Your task to perform on an android device: change alarm snooze length Image 0: 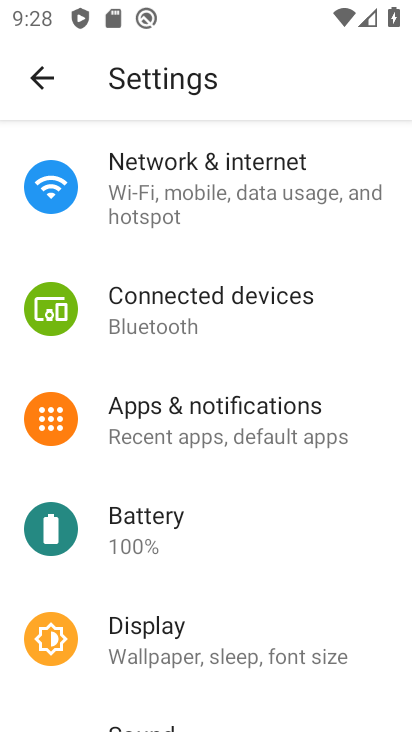
Step 0: press home button
Your task to perform on an android device: change alarm snooze length Image 1: 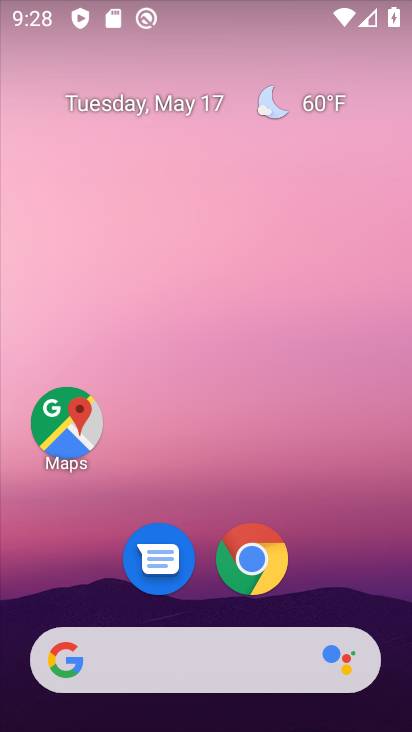
Step 1: drag from (298, 516) to (282, 196)
Your task to perform on an android device: change alarm snooze length Image 2: 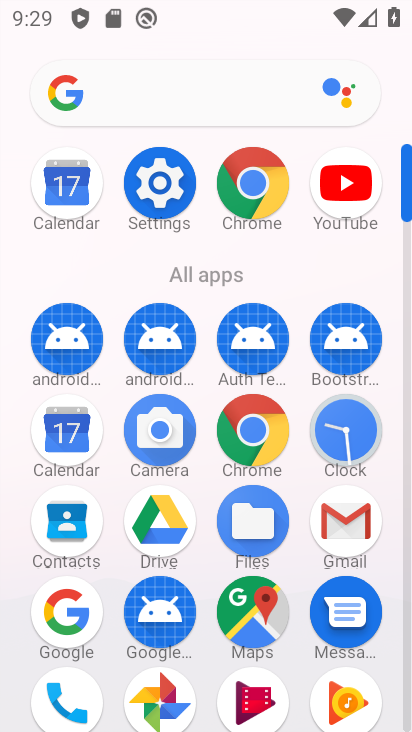
Step 2: click (364, 421)
Your task to perform on an android device: change alarm snooze length Image 3: 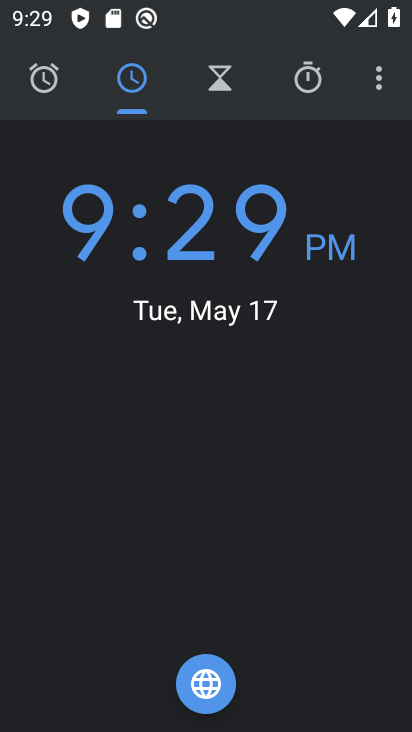
Step 3: drag from (384, 71) to (230, 152)
Your task to perform on an android device: change alarm snooze length Image 4: 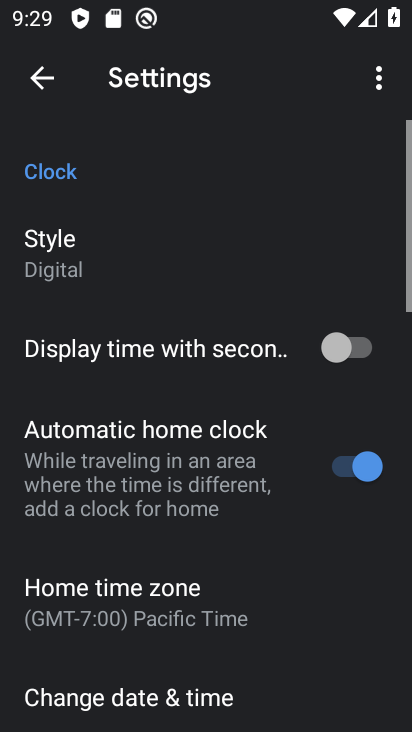
Step 4: drag from (307, 662) to (346, 130)
Your task to perform on an android device: change alarm snooze length Image 5: 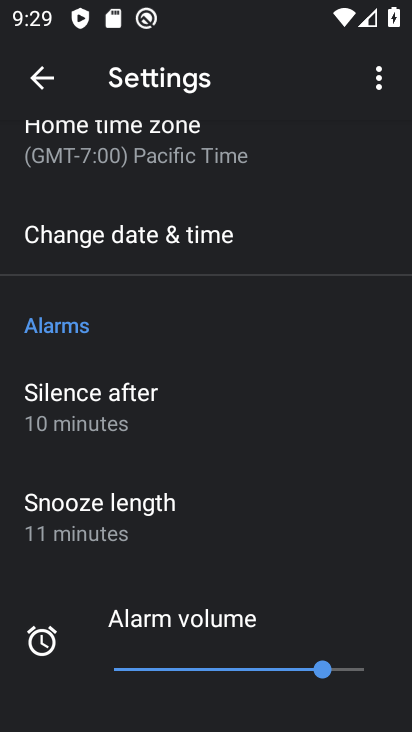
Step 5: click (135, 531)
Your task to perform on an android device: change alarm snooze length Image 6: 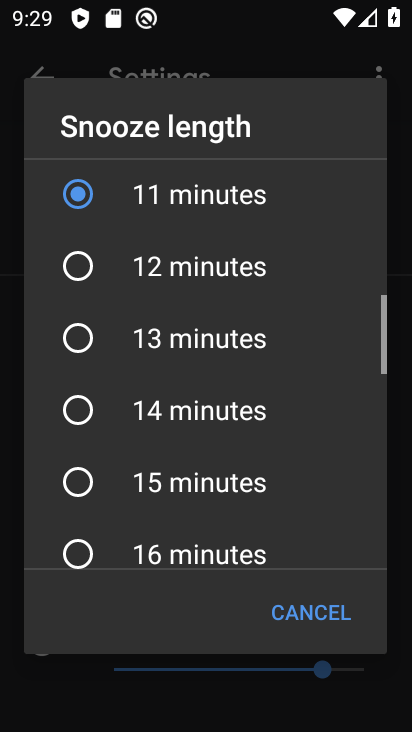
Step 6: click (218, 267)
Your task to perform on an android device: change alarm snooze length Image 7: 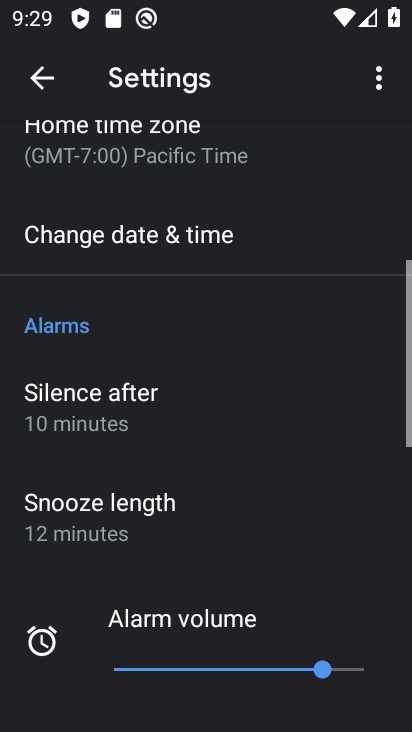
Step 7: task complete